Your task to perform on an android device: turn notification dots on Image 0: 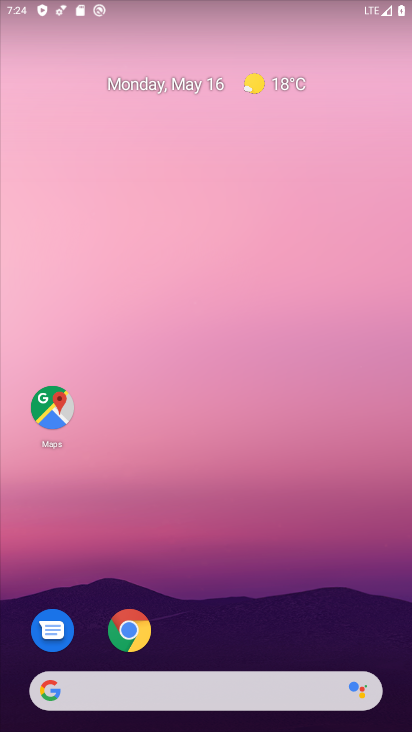
Step 0: drag from (234, 630) to (227, 167)
Your task to perform on an android device: turn notification dots on Image 1: 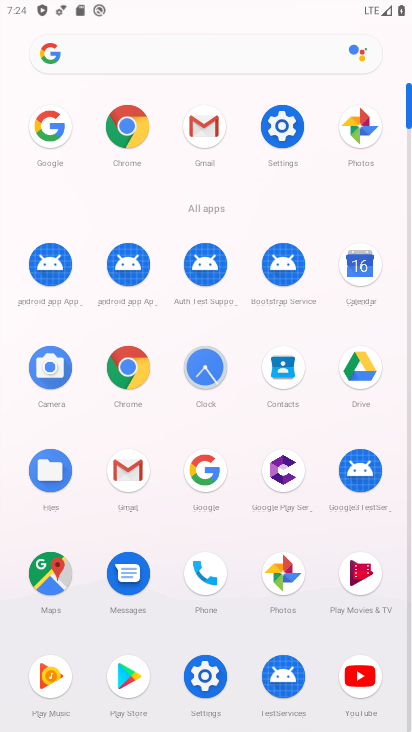
Step 1: click (205, 674)
Your task to perform on an android device: turn notification dots on Image 2: 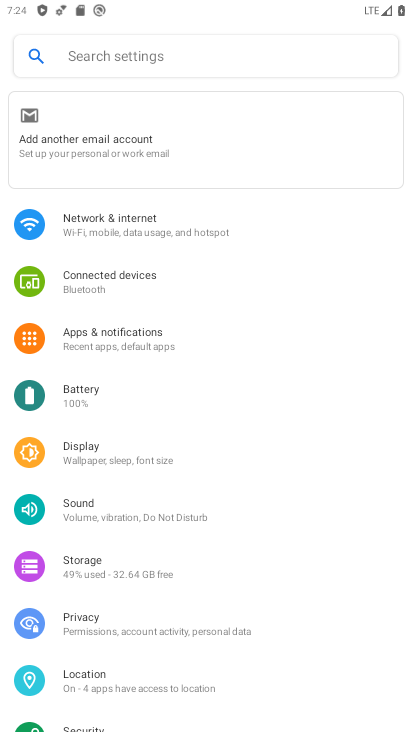
Step 2: click (139, 333)
Your task to perform on an android device: turn notification dots on Image 3: 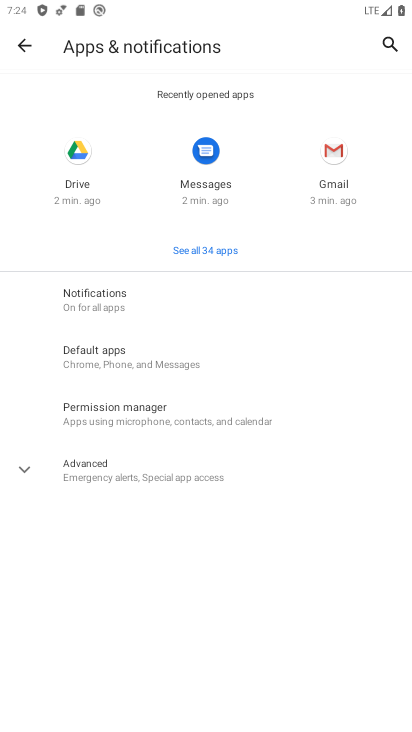
Step 3: click (96, 300)
Your task to perform on an android device: turn notification dots on Image 4: 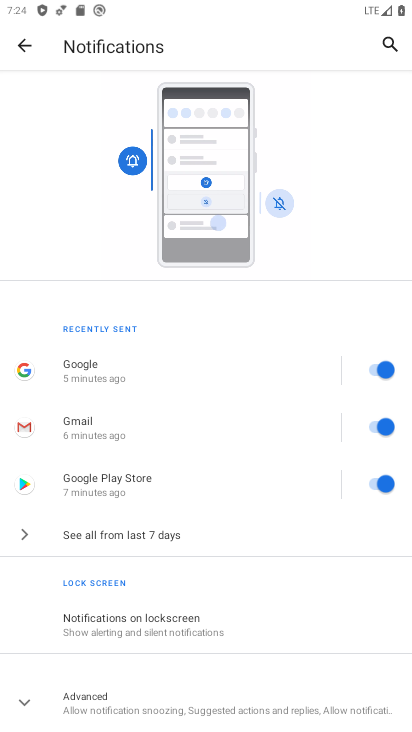
Step 4: click (184, 708)
Your task to perform on an android device: turn notification dots on Image 5: 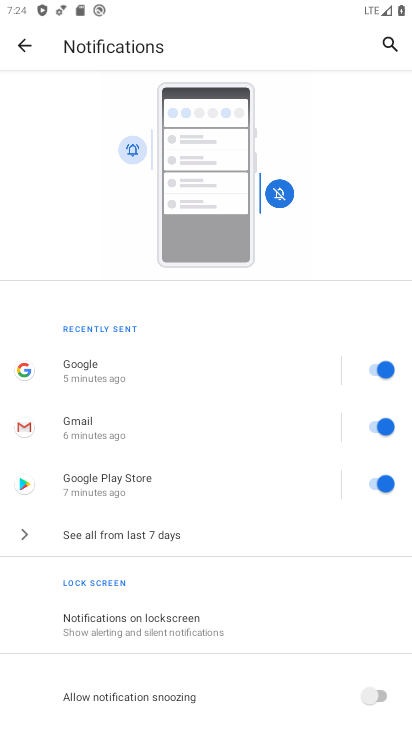
Step 5: drag from (145, 670) to (170, 572)
Your task to perform on an android device: turn notification dots on Image 6: 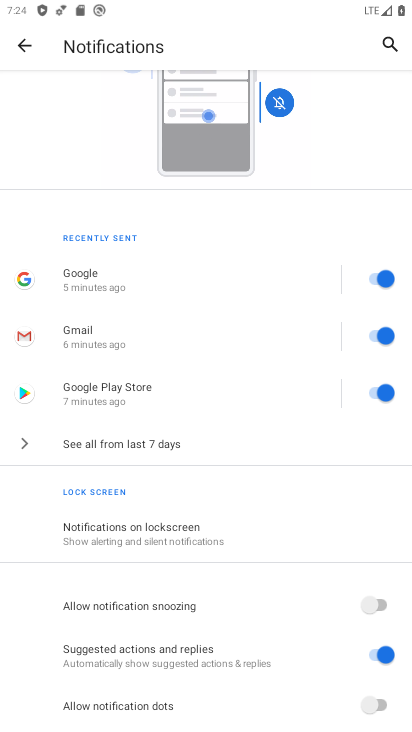
Step 6: drag from (228, 635) to (240, 550)
Your task to perform on an android device: turn notification dots on Image 7: 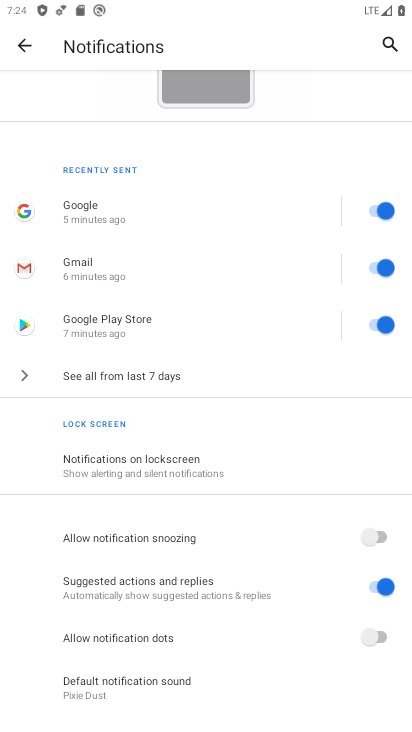
Step 7: click (373, 631)
Your task to perform on an android device: turn notification dots on Image 8: 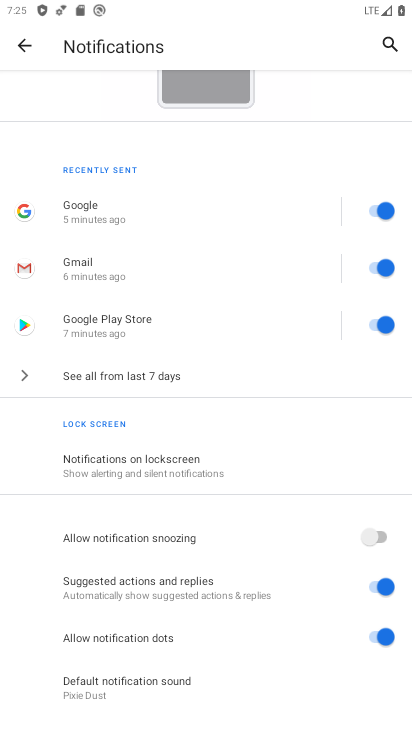
Step 8: task complete